Your task to perform on an android device: Do I have any events this weekend? Image 0: 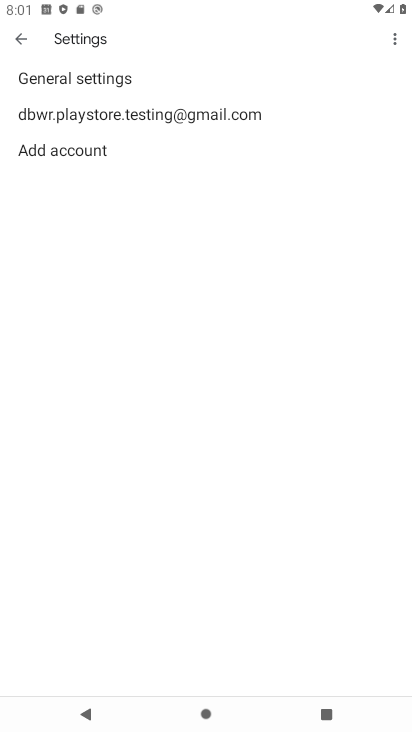
Step 0: press home button
Your task to perform on an android device: Do I have any events this weekend? Image 1: 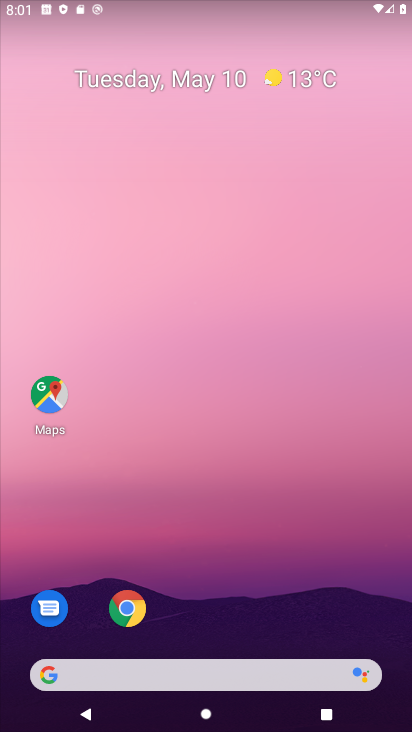
Step 1: drag from (139, 677) to (264, 179)
Your task to perform on an android device: Do I have any events this weekend? Image 2: 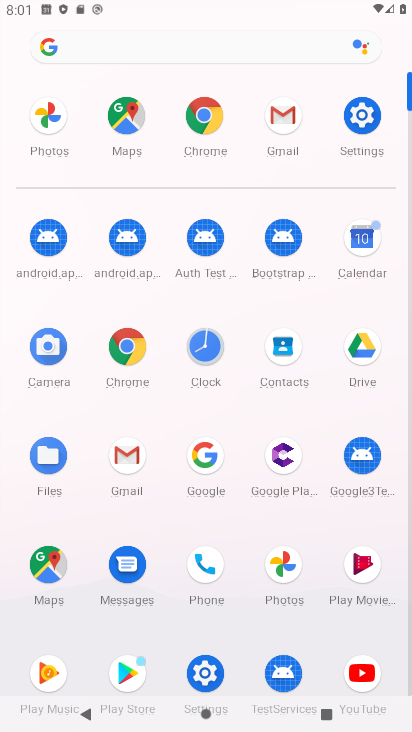
Step 2: click (362, 250)
Your task to perform on an android device: Do I have any events this weekend? Image 3: 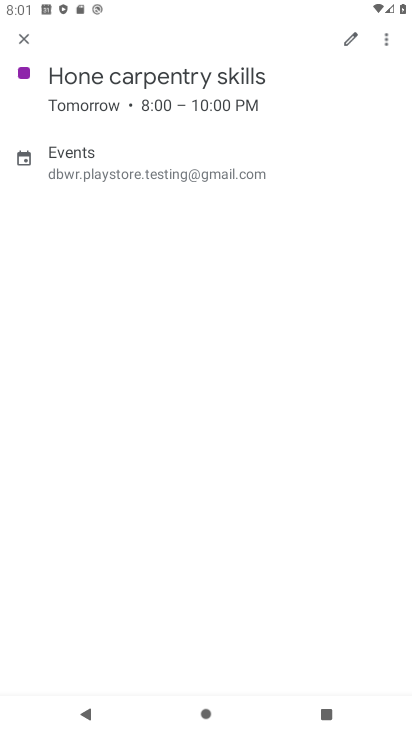
Step 3: click (22, 40)
Your task to perform on an android device: Do I have any events this weekend? Image 4: 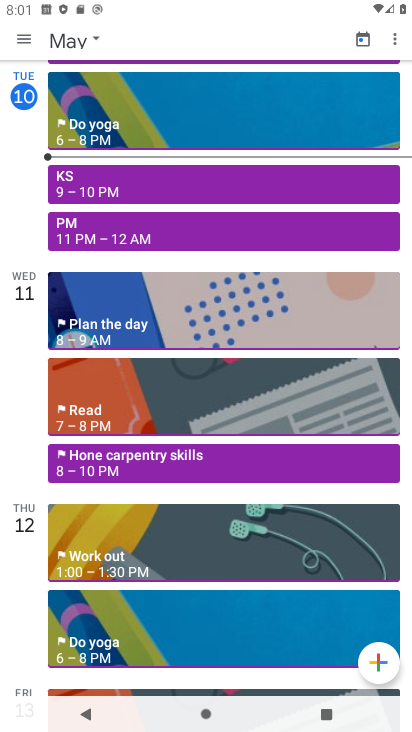
Step 4: click (72, 41)
Your task to perform on an android device: Do I have any events this weekend? Image 5: 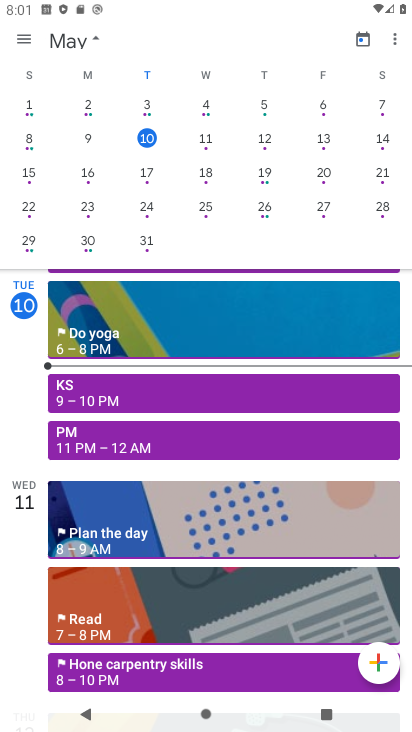
Step 5: click (383, 135)
Your task to perform on an android device: Do I have any events this weekend? Image 6: 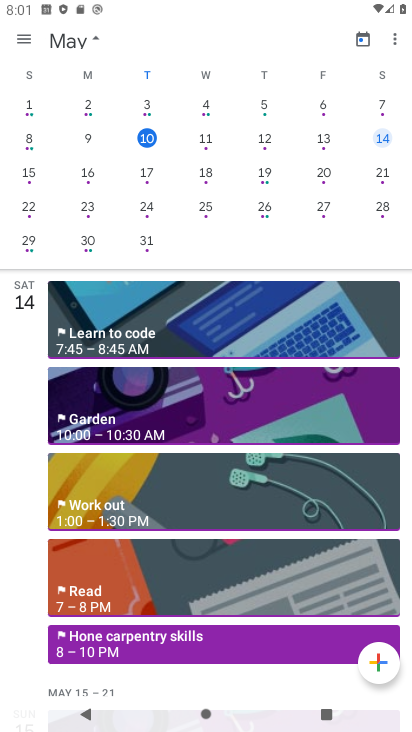
Step 6: click (19, 38)
Your task to perform on an android device: Do I have any events this weekend? Image 7: 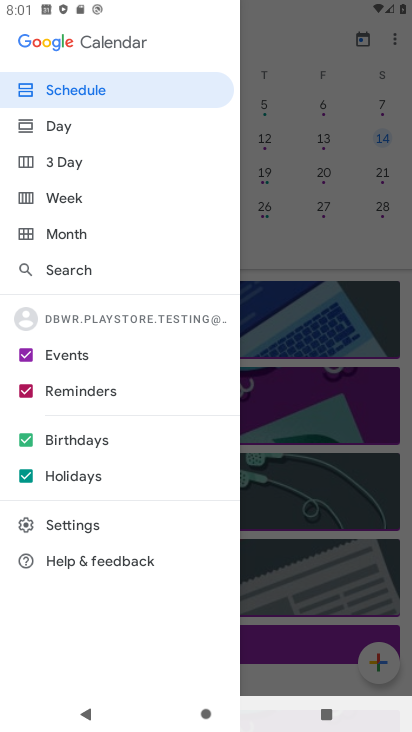
Step 7: click (60, 127)
Your task to perform on an android device: Do I have any events this weekend? Image 8: 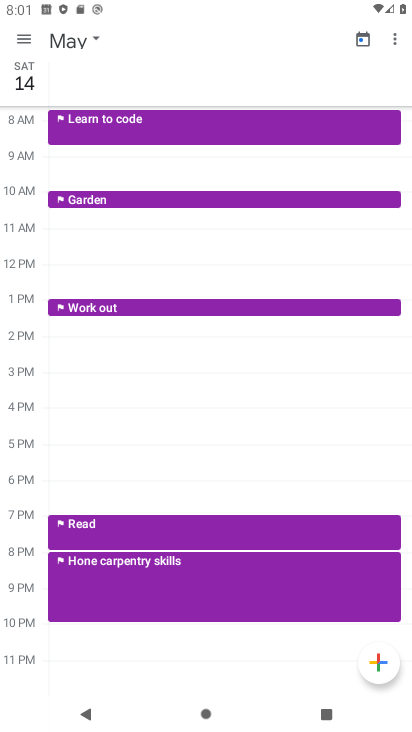
Step 8: click (23, 36)
Your task to perform on an android device: Do I have any events this weekend? Image 9: 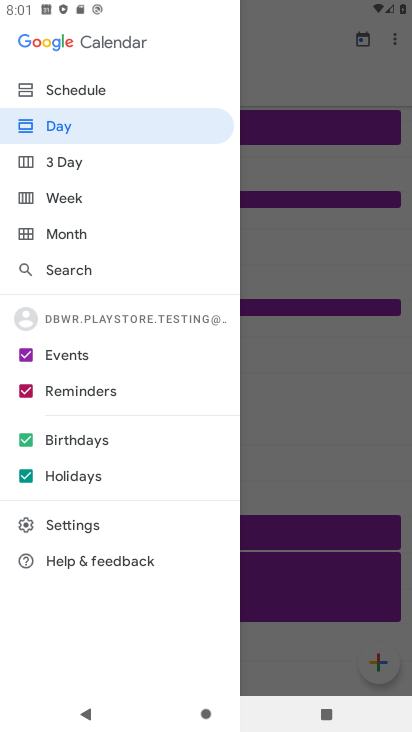
Step 9: click (70, 91)
Your task to perform on an android device: Do I have any events this weekend? Image 10: 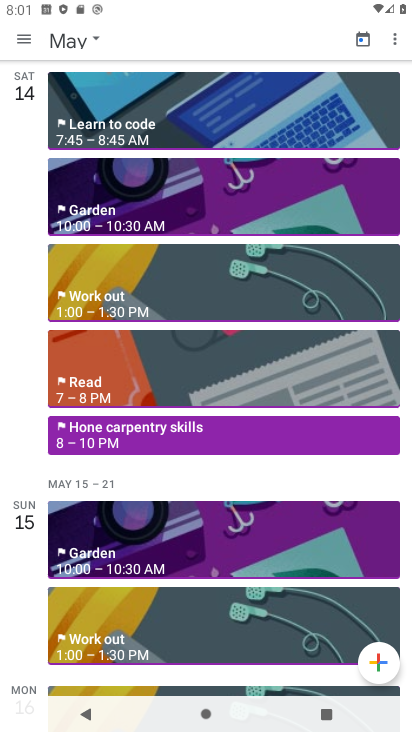
Step 10: click (182, 184)
Your task to perform on an android device: Do I have any events this weekend? Image 11: 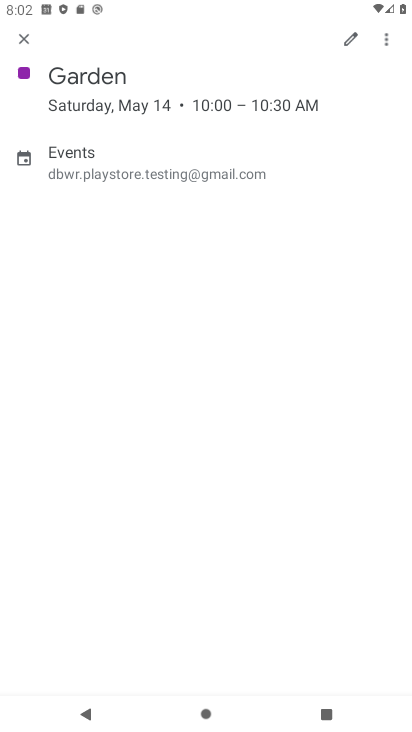
Step 11: task complete